Your task to perform on an android device: What is the recent news? Image 0: 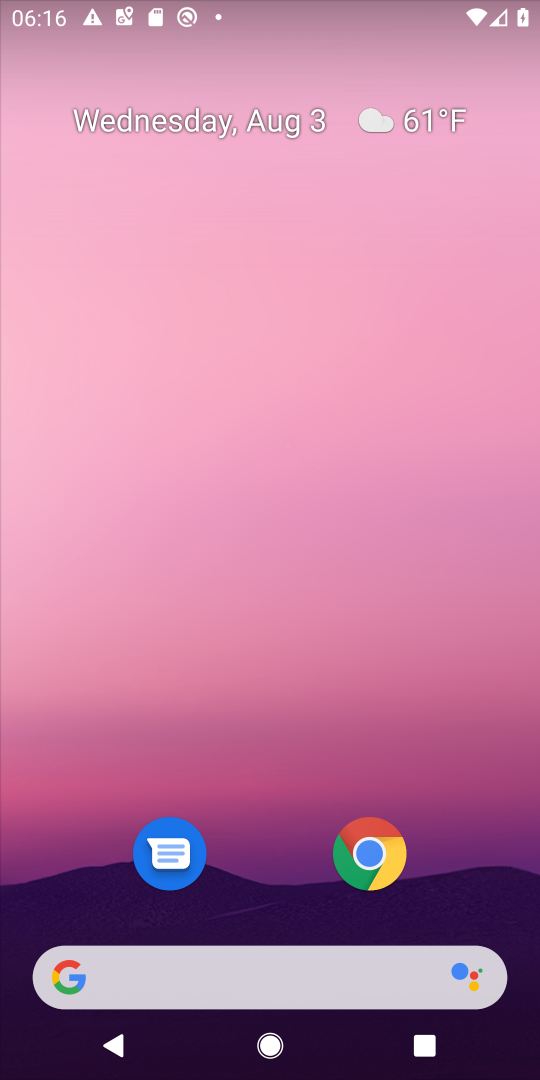
Step 0: drag from (3, 385) to (505, 404)
Your task to perform on an android device: What is the recent news? Image 1: 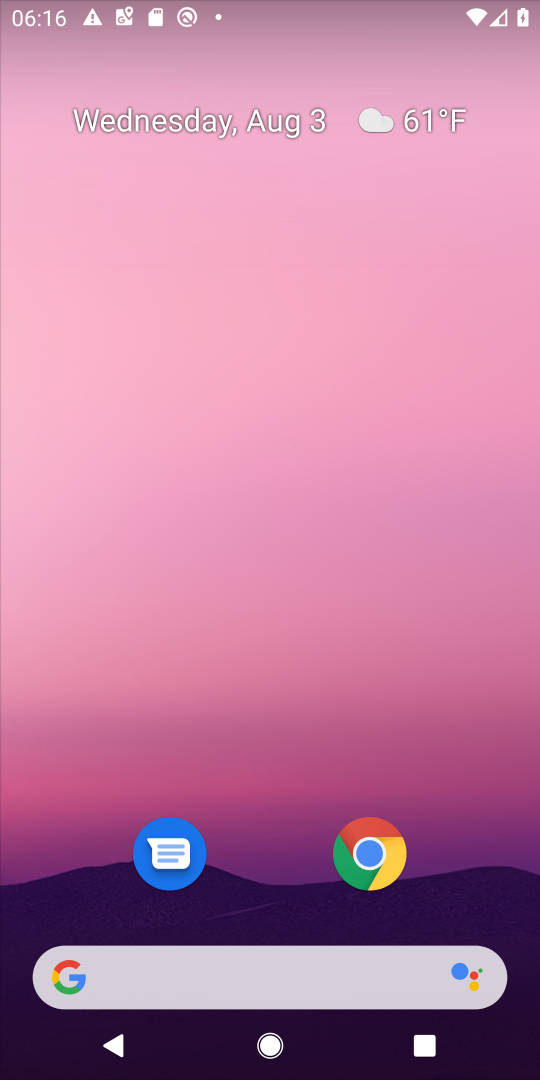
Step 1: task complete